Your task to perform on an android device: Go to internet settings Image 0: 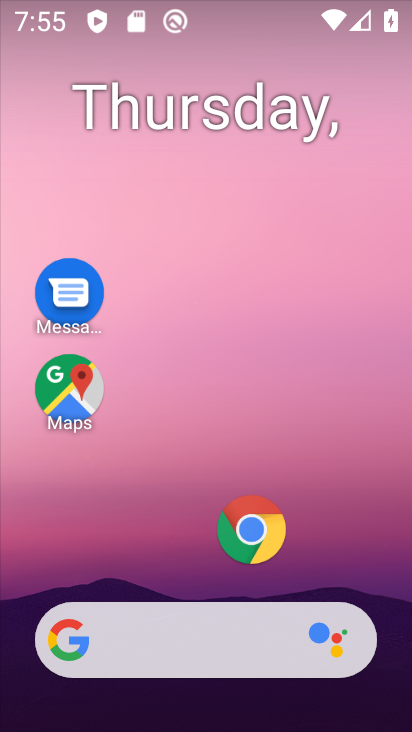
Step 0: drag from (166, 547) to (298, 42)
Your task to perform on an android device: Go to internet settings Image 1: 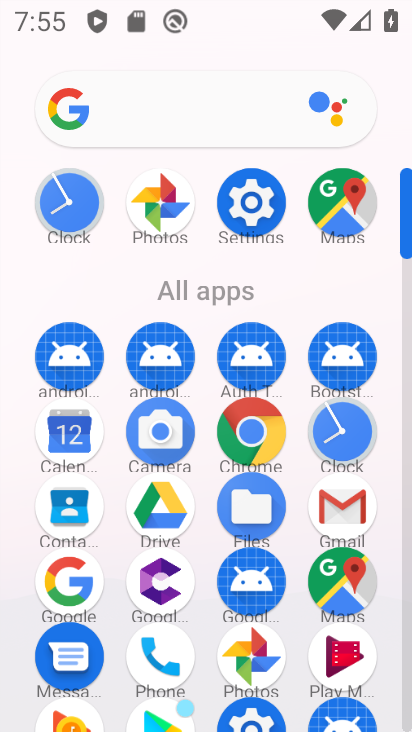
Step 1: click (250, 202)
Your task to perform on an android device: Go to internet settings Image 2: 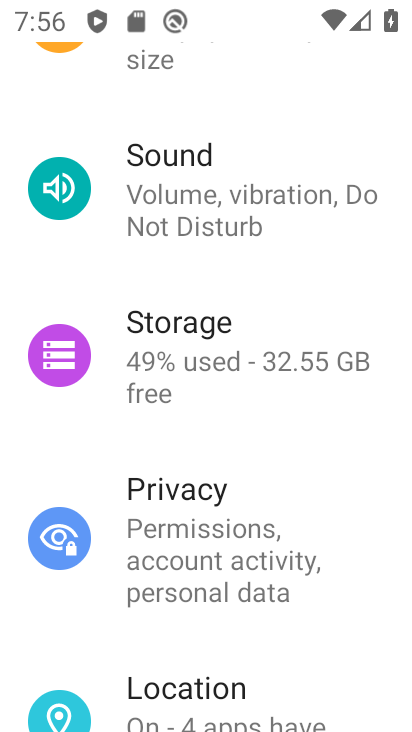
Step 2: drag from (249, 155) to (164, 623)
Your task to perform on an android device: Go to internet settings Image 3: 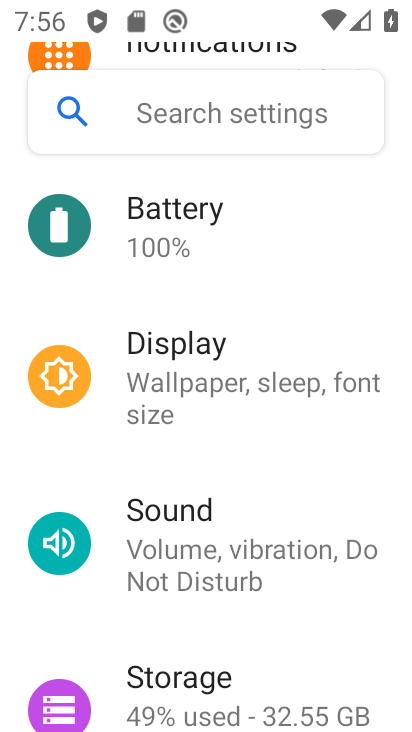
Step 3: click (252, 382)
Your task to perform on an android device: Go to internet settings Image 4: 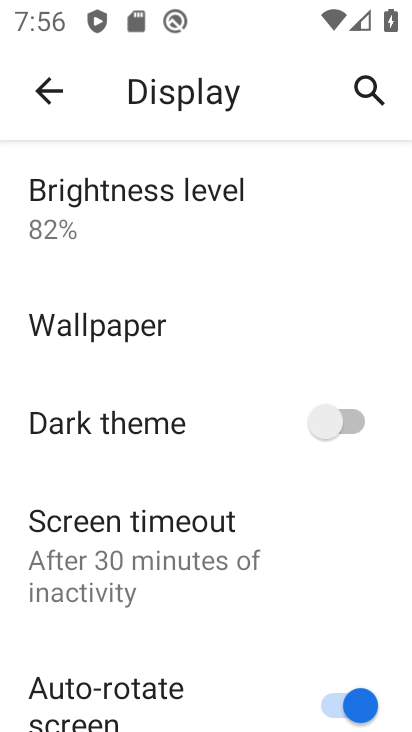
Step 4: drag from (214, 4) to (211, 606)
Your task to perform on an android device: Go to internet settings Image 5: 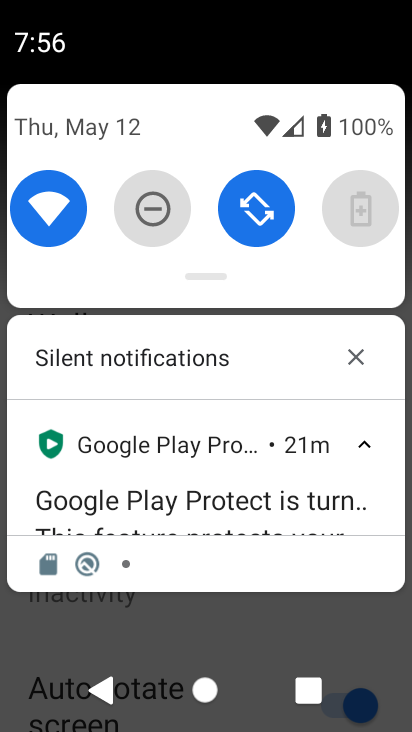
Step 5: drag from (221, 150) to (227, 704)
Your task to perform on an android device: Go to internet settings Image 6: 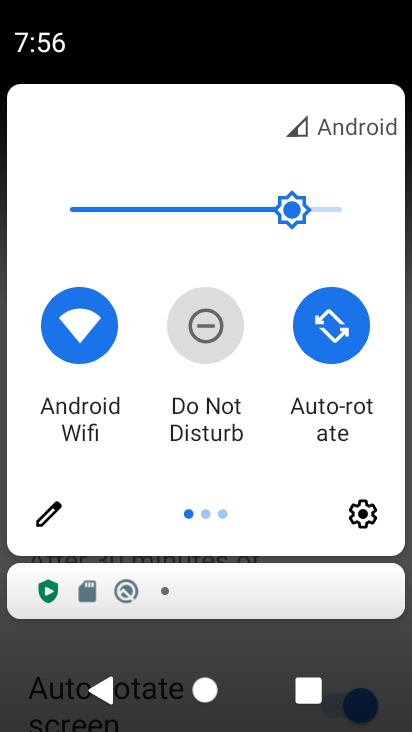
Step 6: drag from (374, 444) to (16, 403)
Your task to perform on an android device: Go to internet settings Image 7: 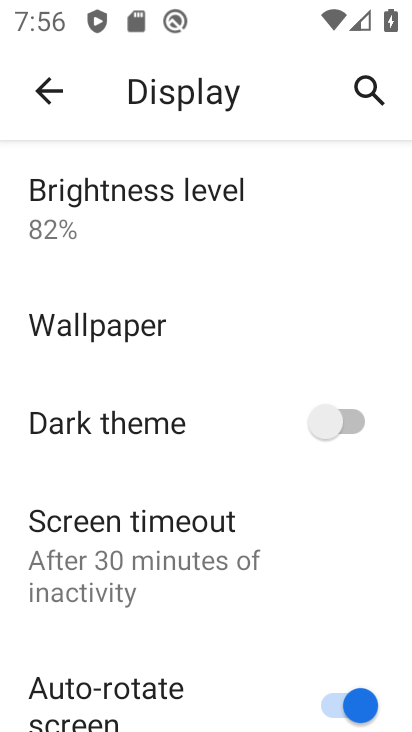
Step 7: drag from (233, 15) to (199, 605)
Your task to perform on an android device: Go to internet settings Image 8: 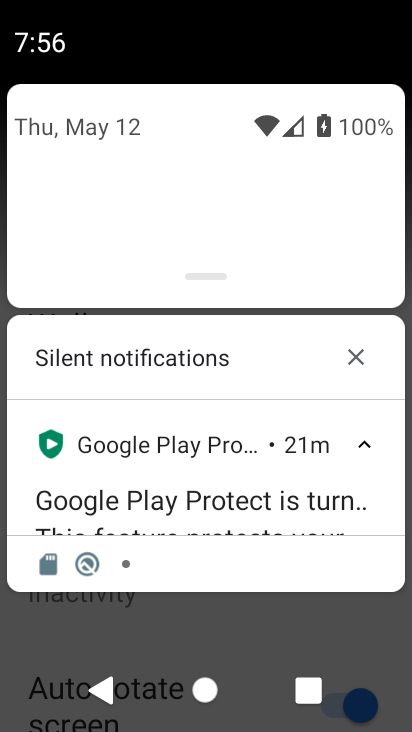
Step 8: drag from (246, 161) to (266, 578)
Your task to perform on an android device: Go to internet settings Image 9: 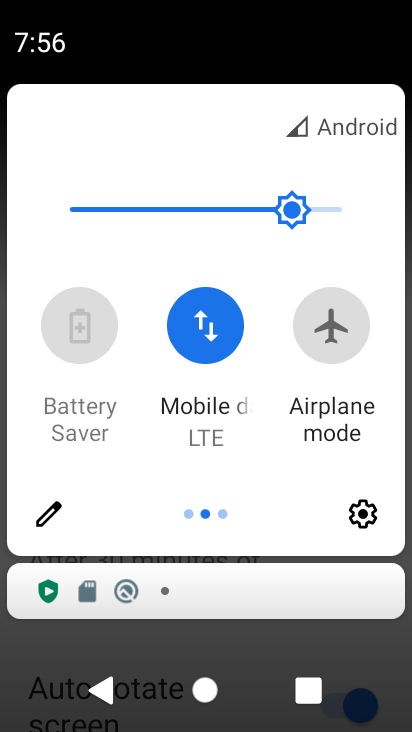
Step 9: click (215, 339)
Your task to perform on an android device: Go to internet settings Image 10: 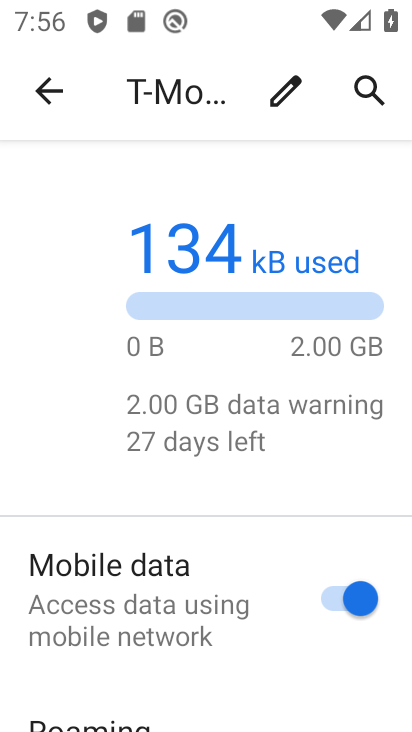
Step 10: task complete